Your task to perform on an android device: Show me popular games on the Play Store Image 0: 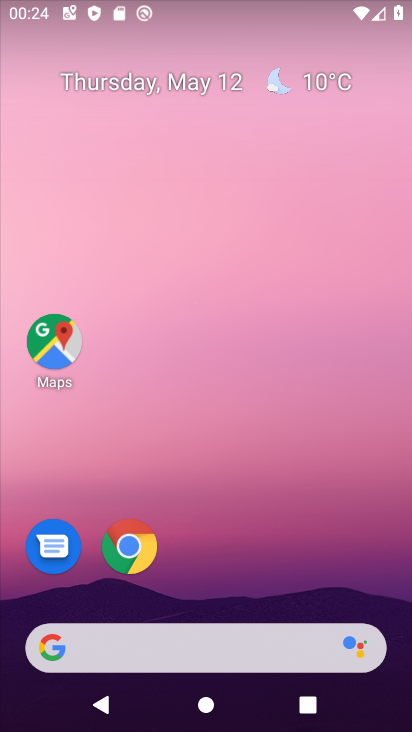
Step 0: drag from (146, 596) to (169, 272)
Your task to perform on an android device: Show me popular games on the Play Store Image 1: 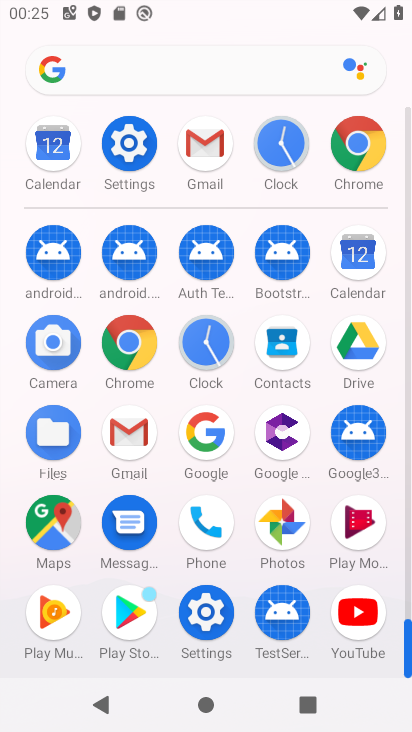
Step 1: click (127, 603)
Your task to perform on an android device: Show me popular games on the Play Store Image 2: 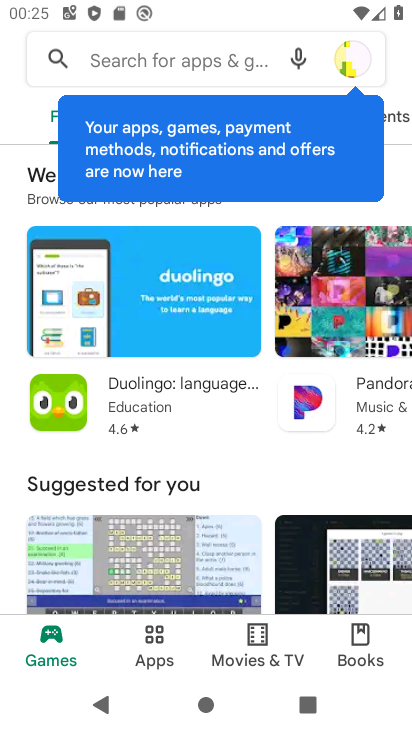
Step 2: click (142, 46)
Your task to perform on an android device: Show me popular games on the Play Store Image 3: 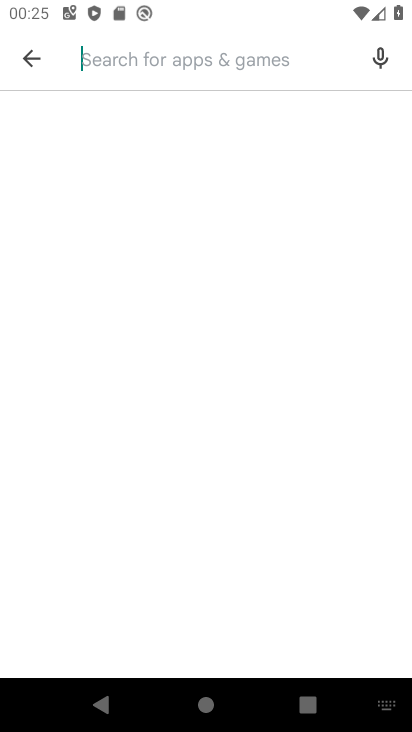
Step 3: type "popular games"
Your task to perform on an android device: Show me popular games on the Play Store Image 4: 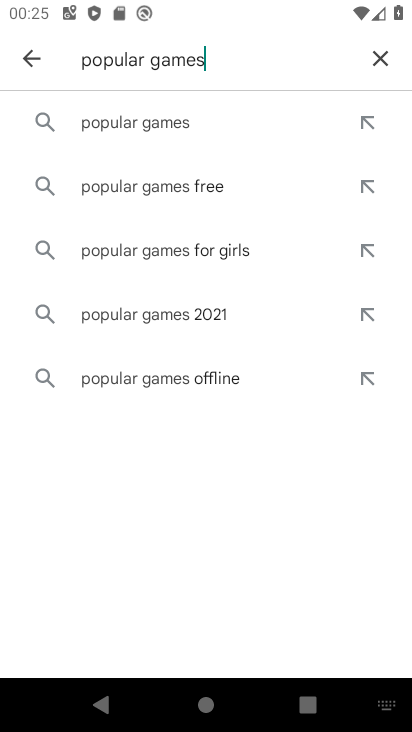
Step 4: click (134, 112)
Your task to perform on an android device: Show me popular games on the Play Store Image 5: 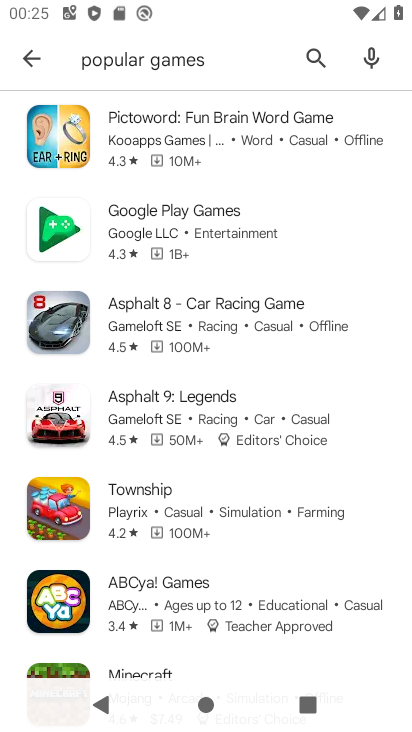
Step 5: task complete